Your task to perform on an android device: Open ESPN.com Image 0: 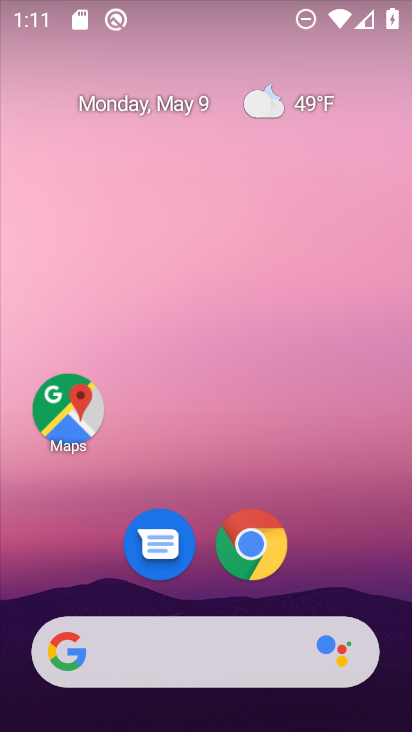
Step 0: drag from (331, 546) to (308, 67)
Your task to perform on an android device: Open ESPN.com Image 1: 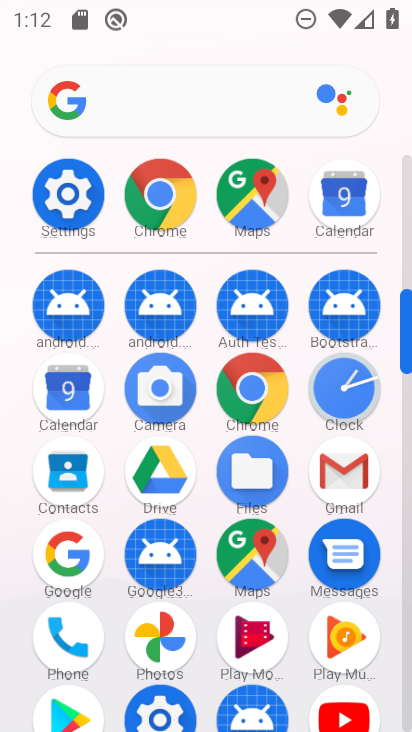
Step 1: click (172, 194)
Your task to perform on an android device: Open ESPN.com Image 2: 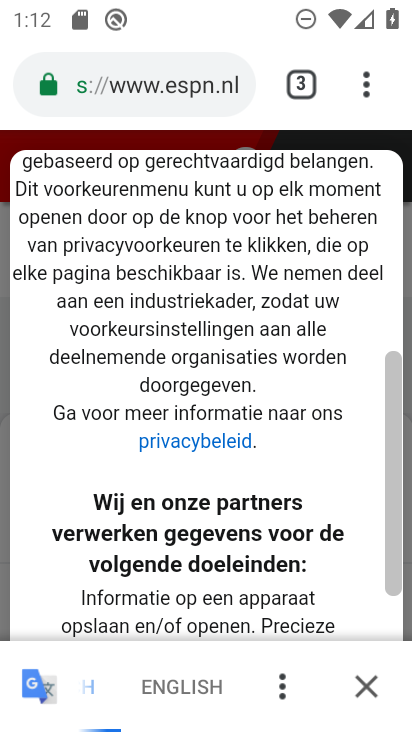
Step 2: click (177, 75)
Your task to perform on an android device: Open ESPN.com Image 3: 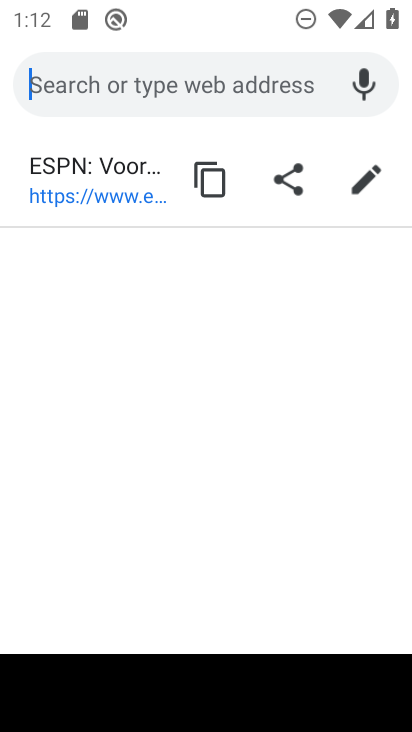
Step 3: click (71, 193)
Your task to perform on an android device: Open ESPN.com Image 4: 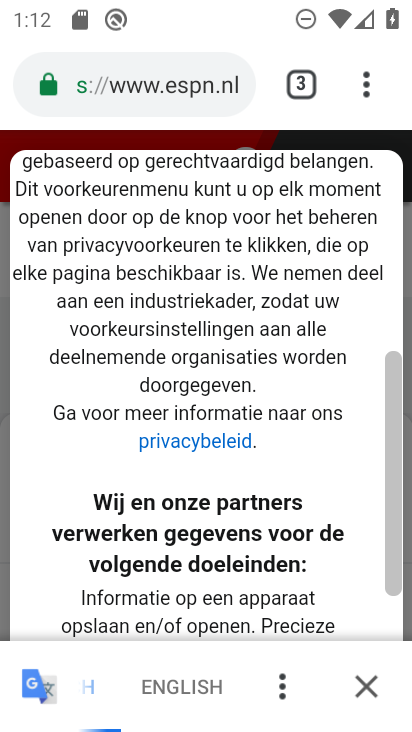
Step 4: task complete